Your task to perform on an android device: Open Google Image 0: 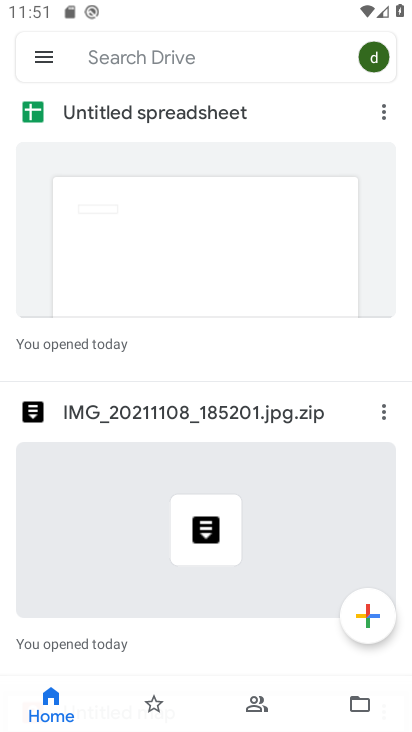
Step 0: press back button
Your task to perform on an android device: Open Google Image 1: 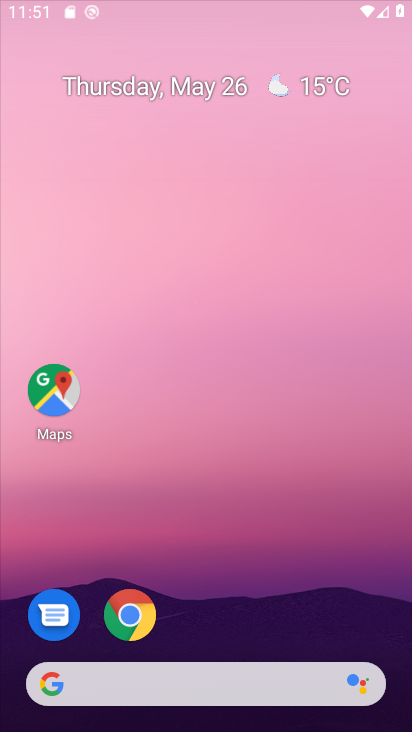
Step 1: press home button
Your task to perform on an android device: Open Google Image 2: 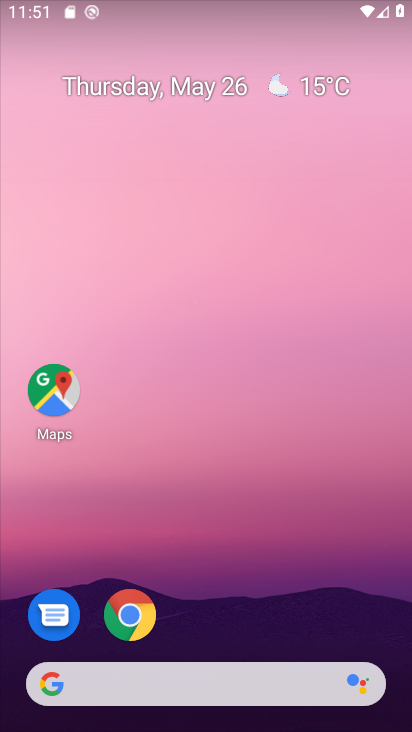
Step 2: press home button
Your task to perform on an android device: Open Google Image 3: 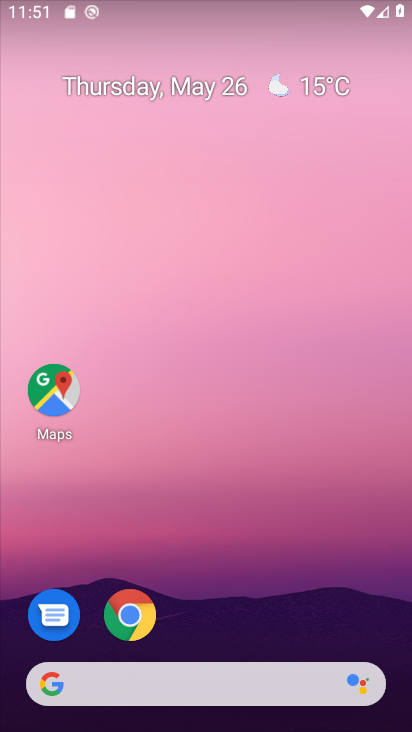
Step 3: press home button
Your task to perform on an android device: Open Google Image 4: 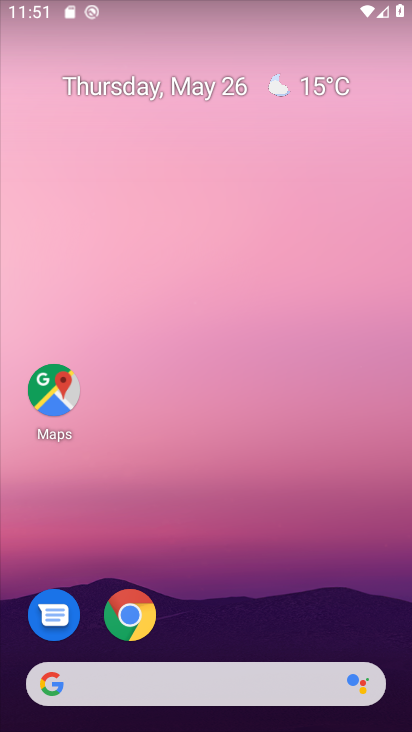
Step 4: click (116, 119)
Your task to perform on an android device: Open Google Image 5: 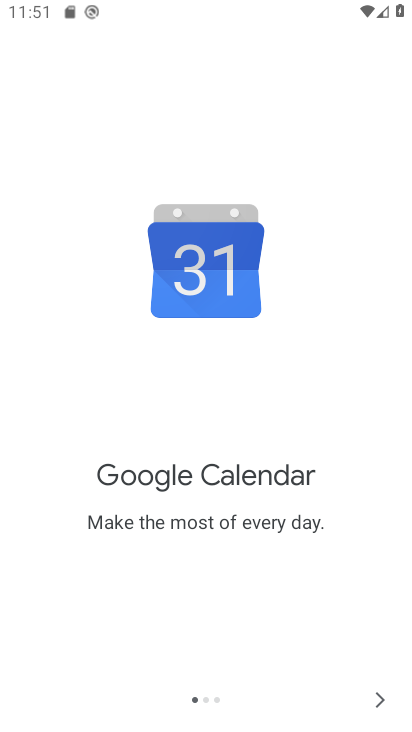
Step 5: drag from (271, 662) to (145, 165)
Your task to perform on an android device: Open Google Image 6: 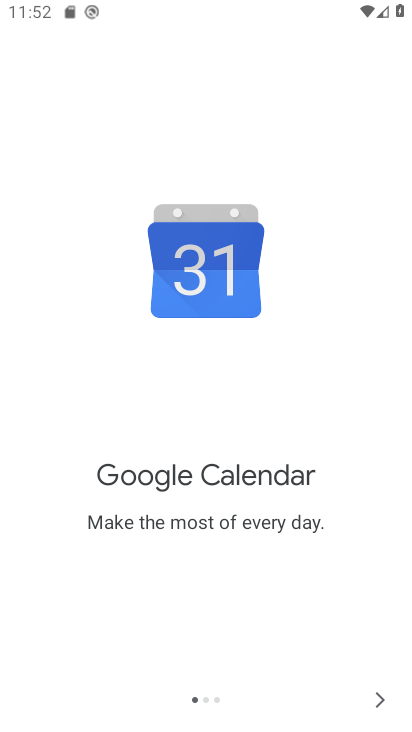
Step 6: click (377, 695)
Your task to perform on an android device: Open Google Image 7: 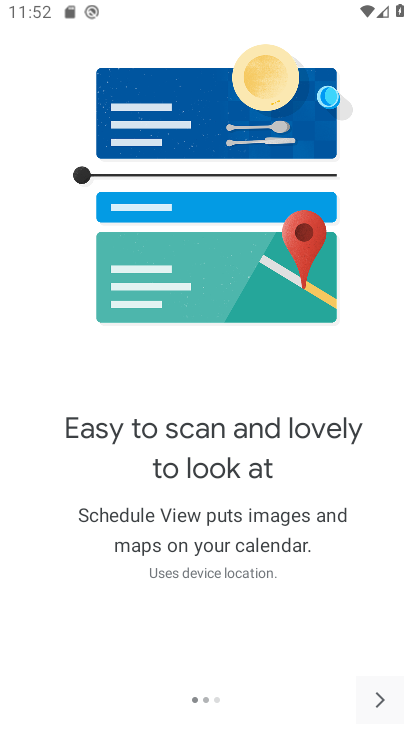
Step 7: click (382, 698)
Your task to perform on an android device: Open Google Image 8: 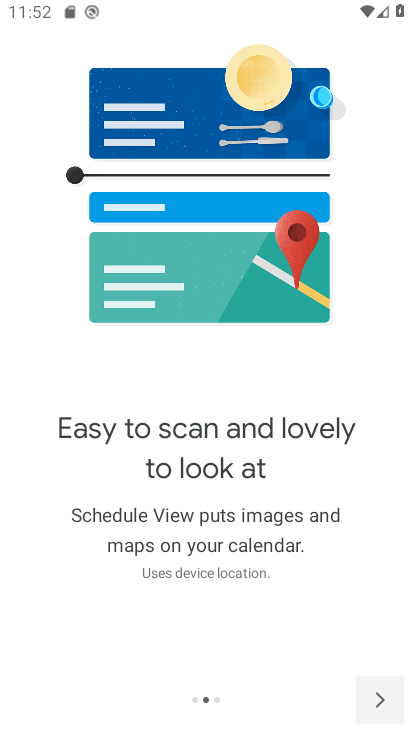
Step 8: click (380, 701)
Your task to perform on an android device: Open Google Image 9: 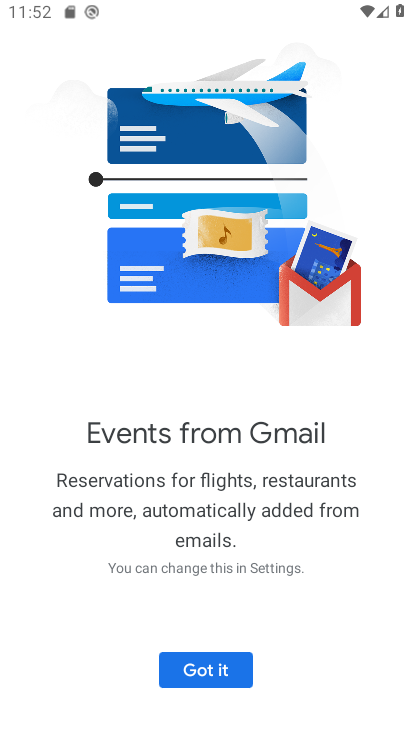
Step 9: click (204, 657)
Your task to perform on an android device: Open Google Image 10: 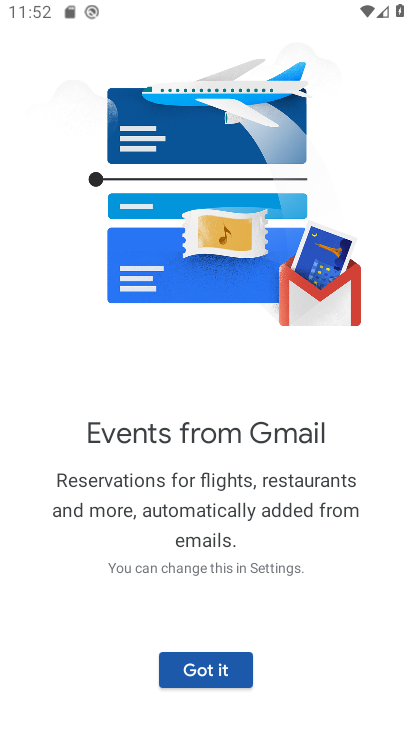
Step 10: click (204, 662)
Your task to perform on an android device: Open Google Image 11: 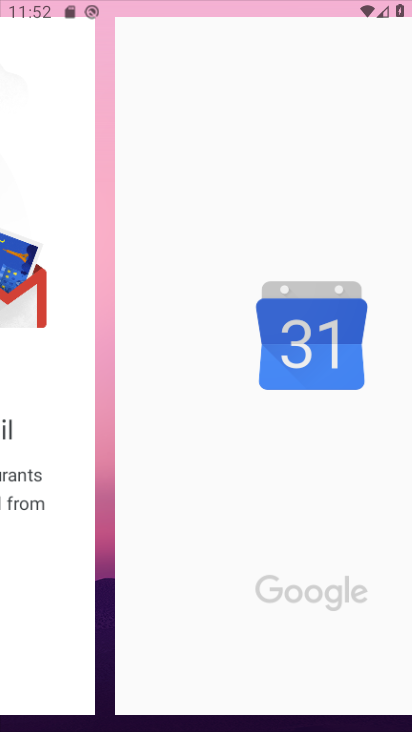
Step 11: click (204, 665)
Your task to perform on an android device: Open Google Image 12: 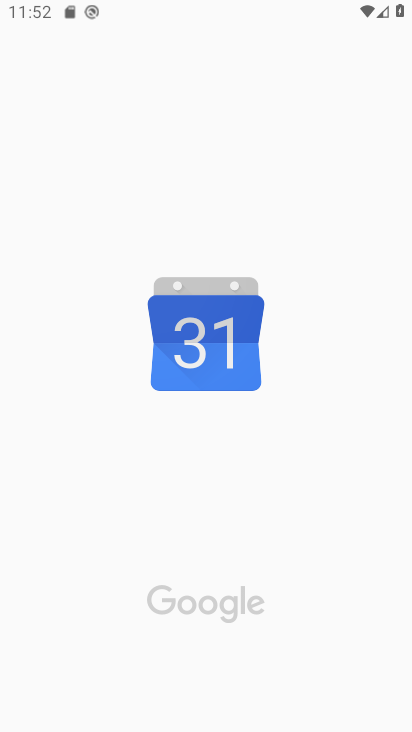
Step 12: click (213, 666)
Your task to perform on an android device: Open Google Image 13: 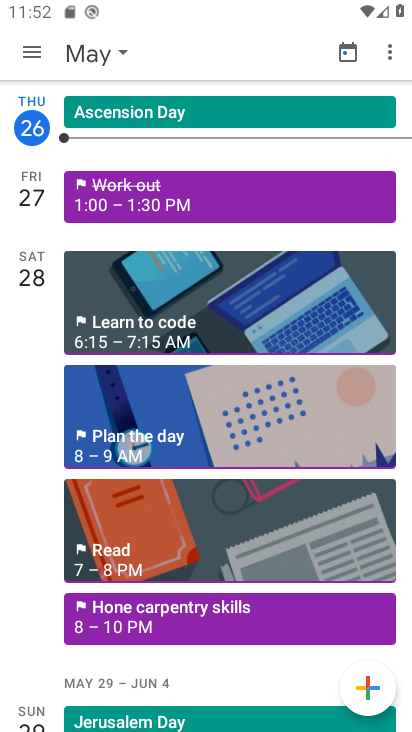
Step 13: click (215, 666)
Your task to perform on an android device: Open Google Image 14: 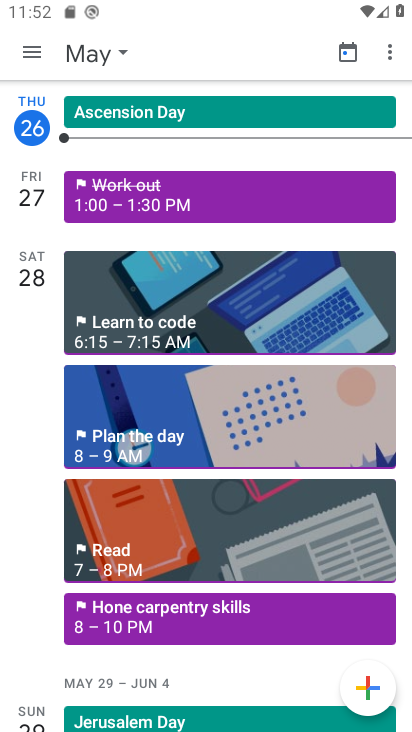
Step 14: click (225, 672)
Your task to perform on an android device: Open Google Image 15: 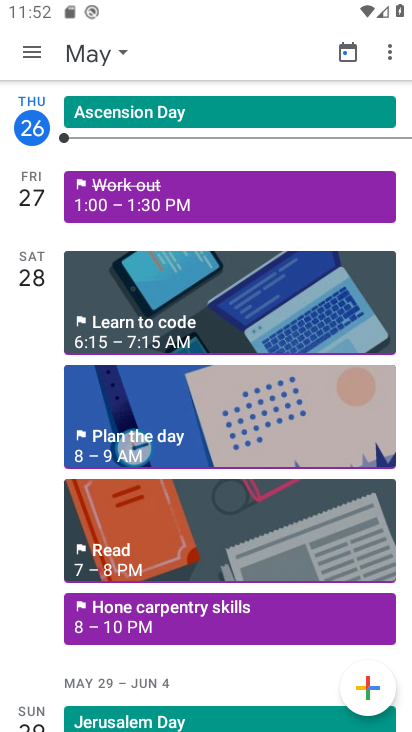
Step 15: press home button
Your task to perform on an android device: Open Google Image 16: 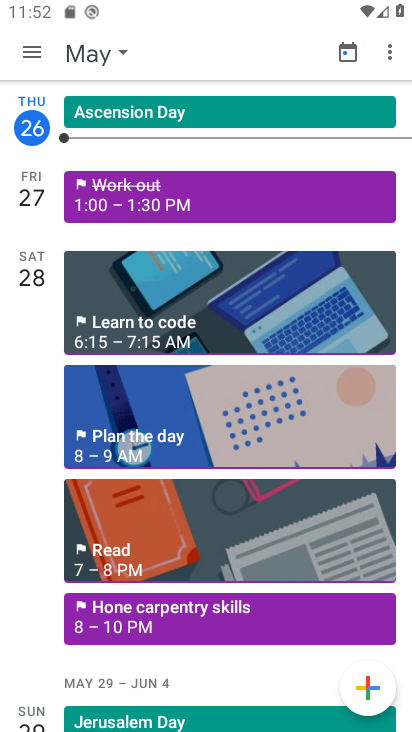
Step 16: press home button
Your task to perform on an android device: Open Google Image 17: 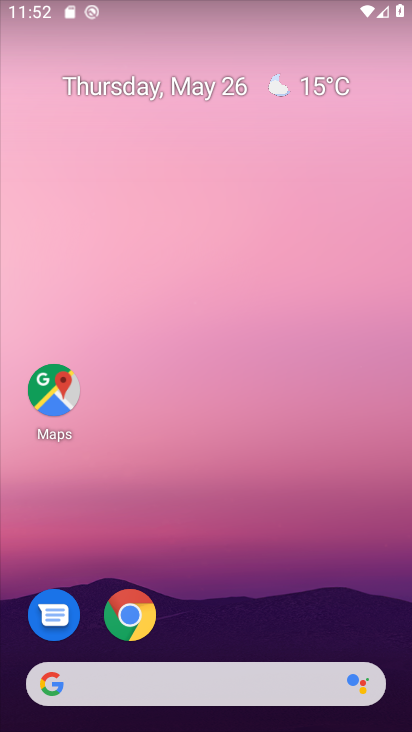
Step 17: press back button
Your task to perform on an android device: Open Google Image 18: 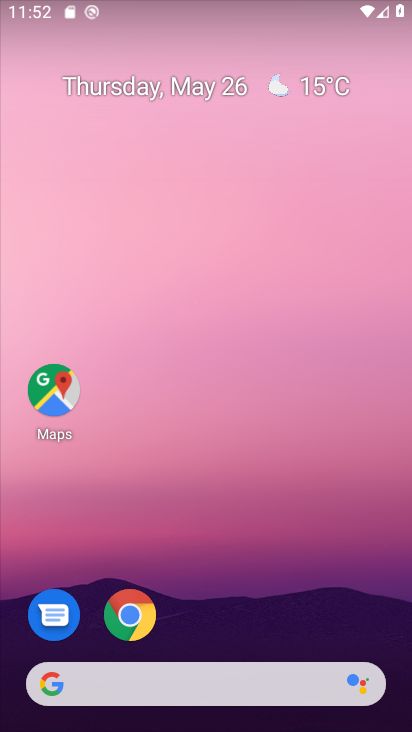
Step 18: drag from (217, 531) to (82, 4)
Your task to perform on an android device: Open Google Image 19: 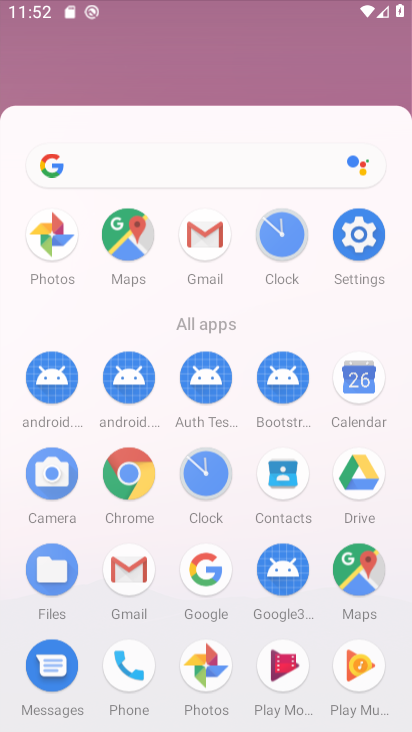
Step 19: drag from (308, 399) to (136, 73)
Your task to perform on an android device: Open Google Image 20: 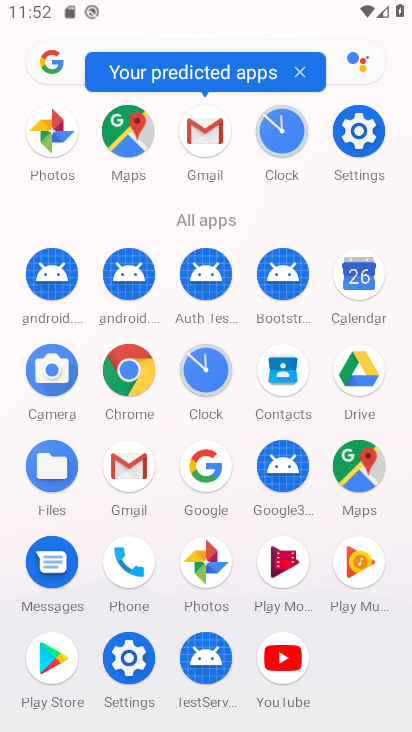
Step 20: click (131, 368)
Your task to perform on an android device: Open Google Image 21: 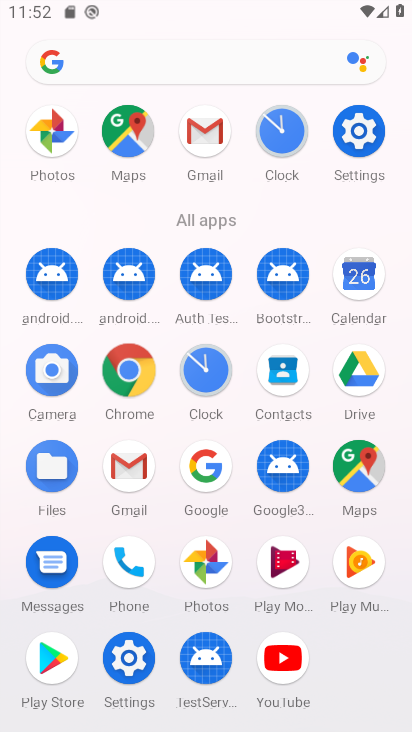
Step 21: click (131, 368)
Your task to perform on an android device: Open Google Image 22: 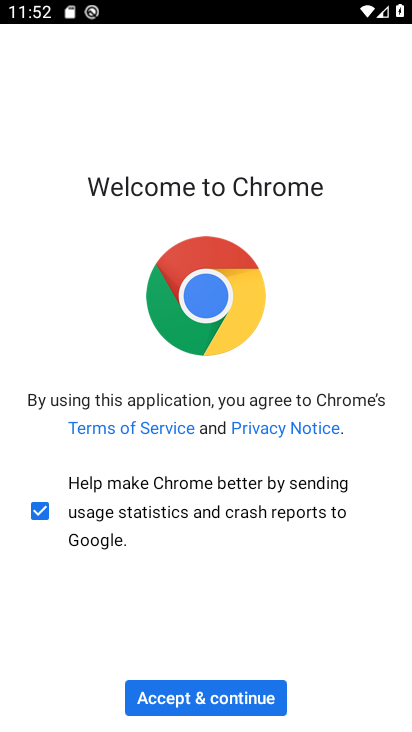
Step 22: press back button
Your task to perform on an android device: Open Google Image 23: 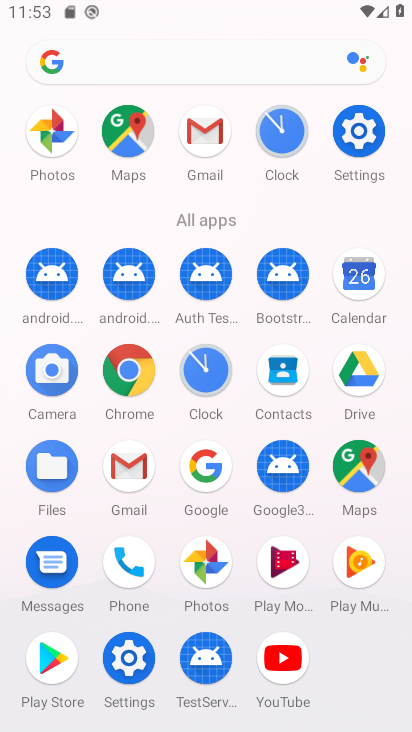
Step 23: click (210, 479)
Your task to perform on an android device: Open Google Image 24: 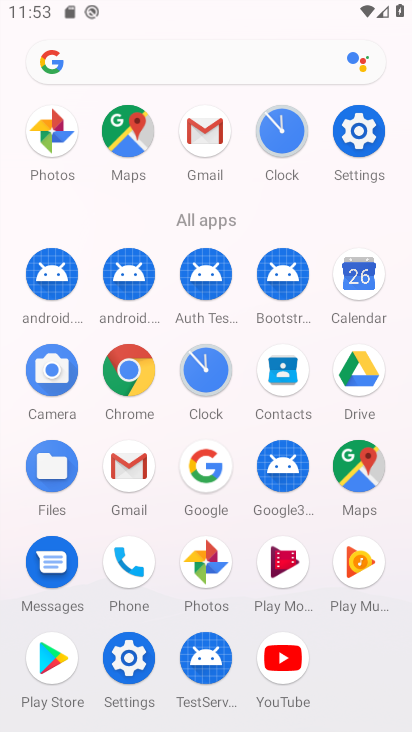
Step 24: click (210, 479)
Your task to perform on an android device: Open Google Image 25: 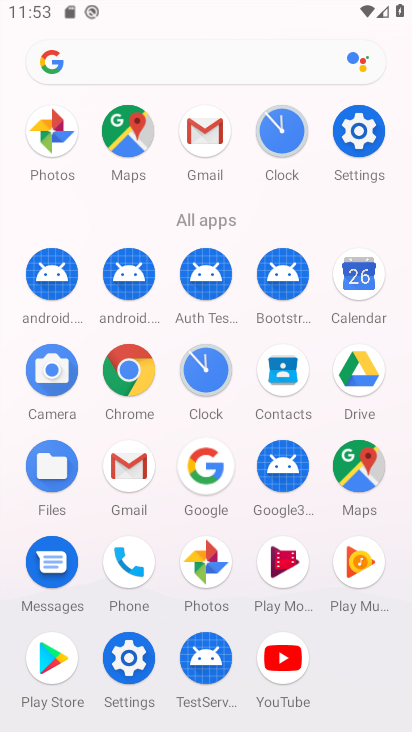
Step 25: click (210, 479)
Your task to perform on an android device: Open Google Image 26: 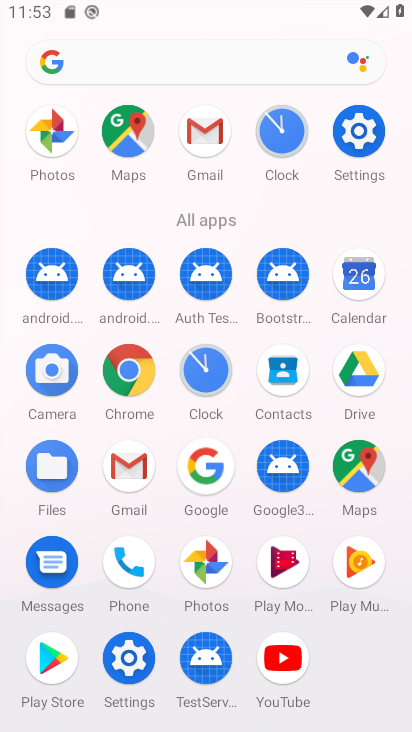
Step 26: task complete